Your task to perform on an android device: Where can I buy a nice beach chair? Image 0: 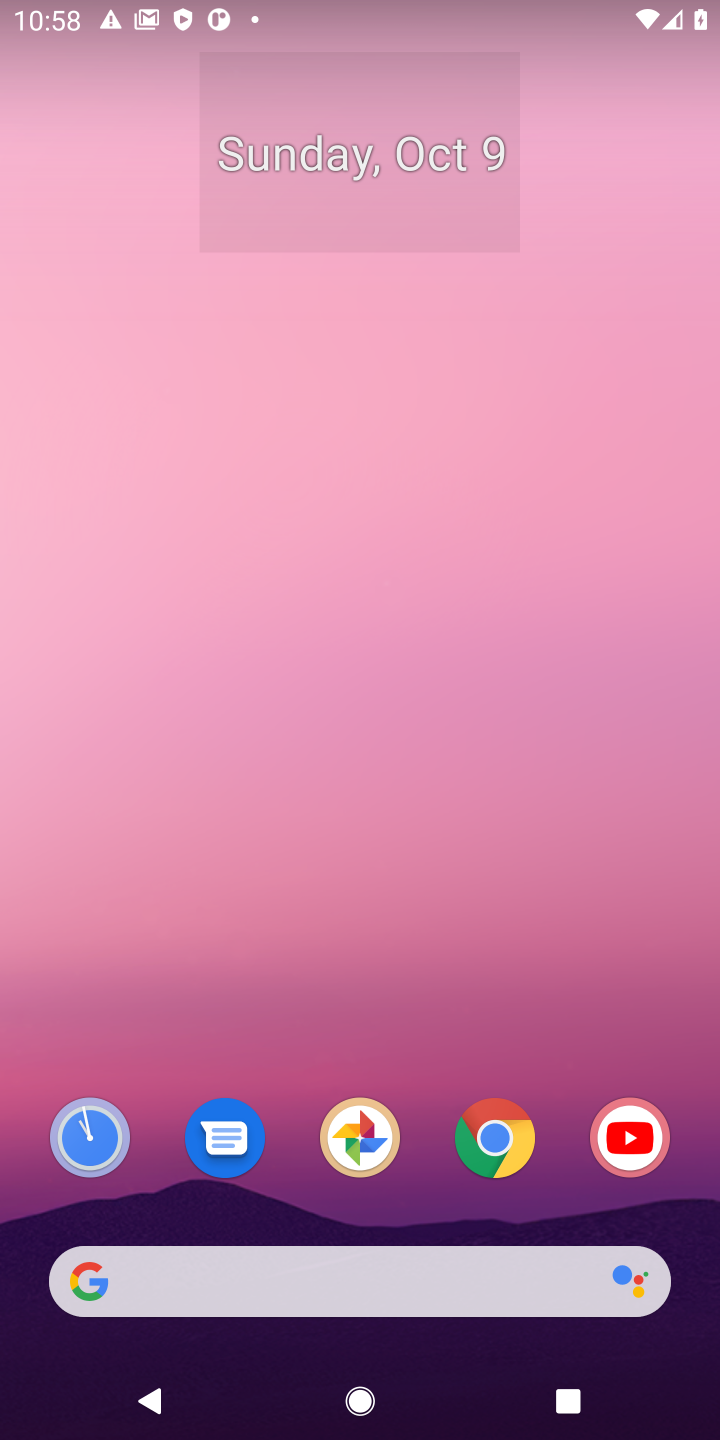
Step 0: click (500, 1165)
Your task to perform on an android device: Where can I buy a nice beach chair? Image 1: 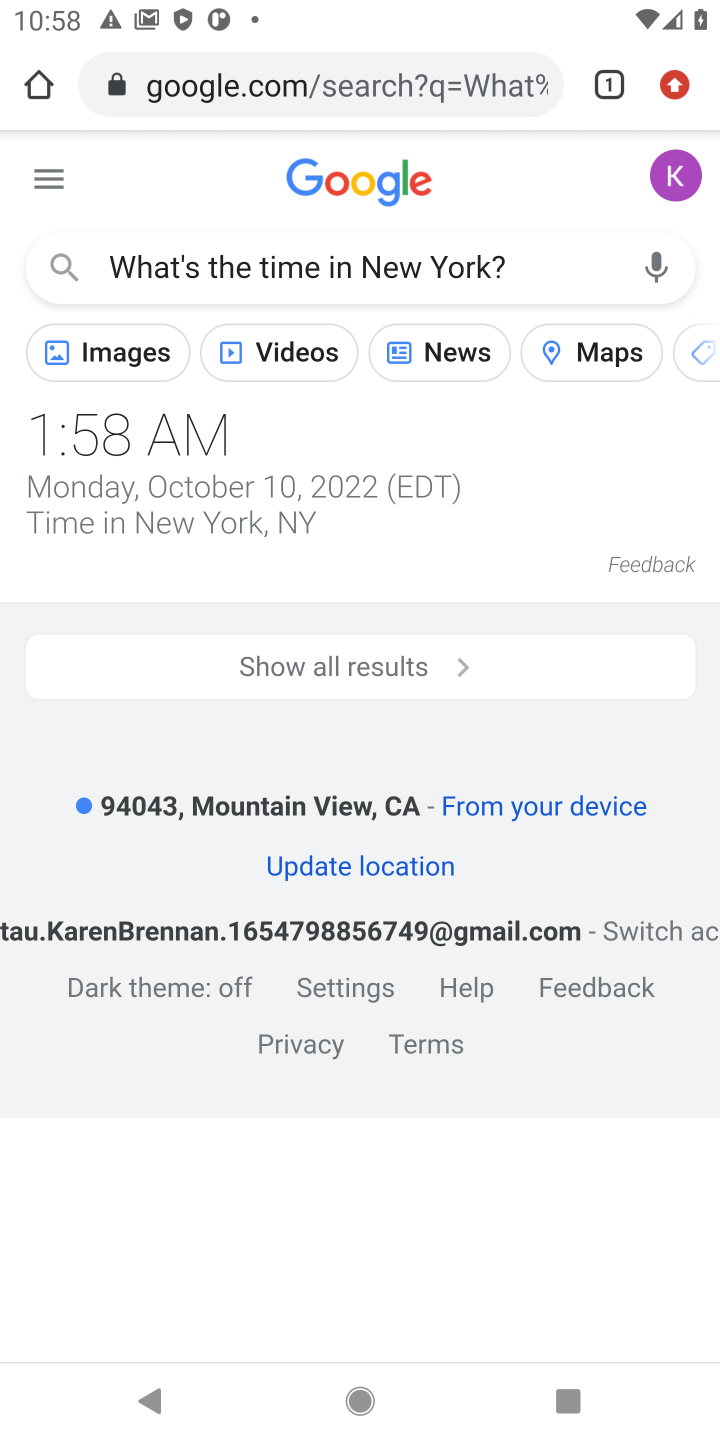
Step 1: click (538, 280)
Your task to perform on an android device: Where can I buy a nice beach chair? Image 2: 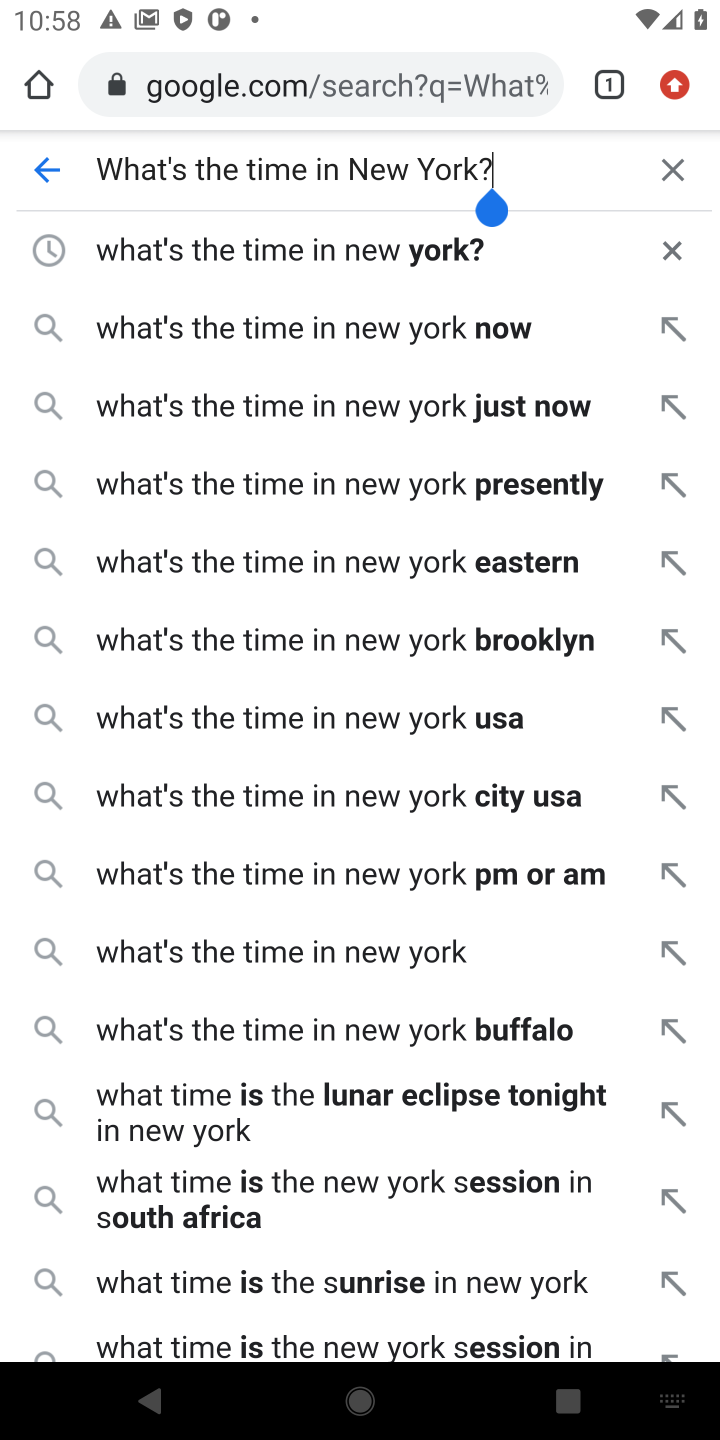
Step 2: click (672, 183)
Your task to perform on an android device: Where can I buy a nice beach chair? Image 3: 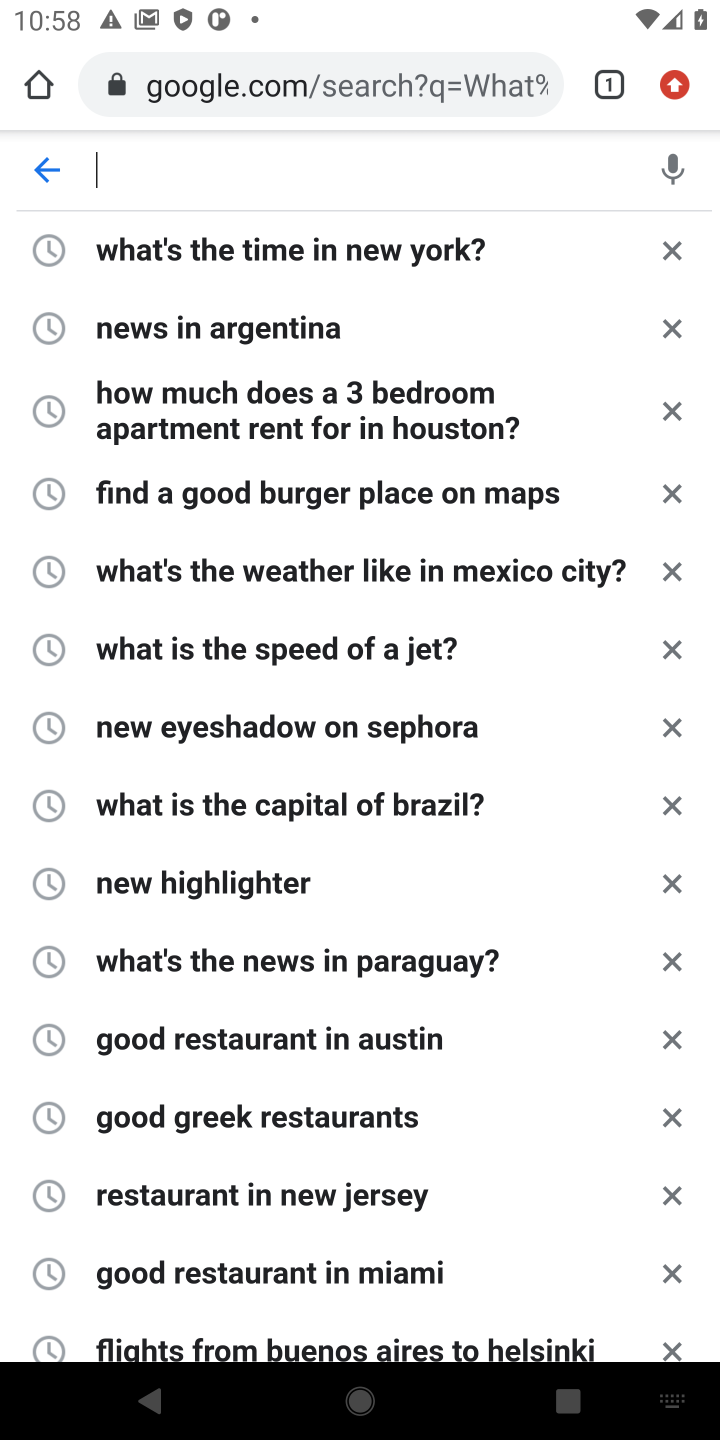
Step 3: type "Where can I buy a nice beach chair?"
Your task to perform on an android device: Where can I buy a nice beach chair? Image 4: 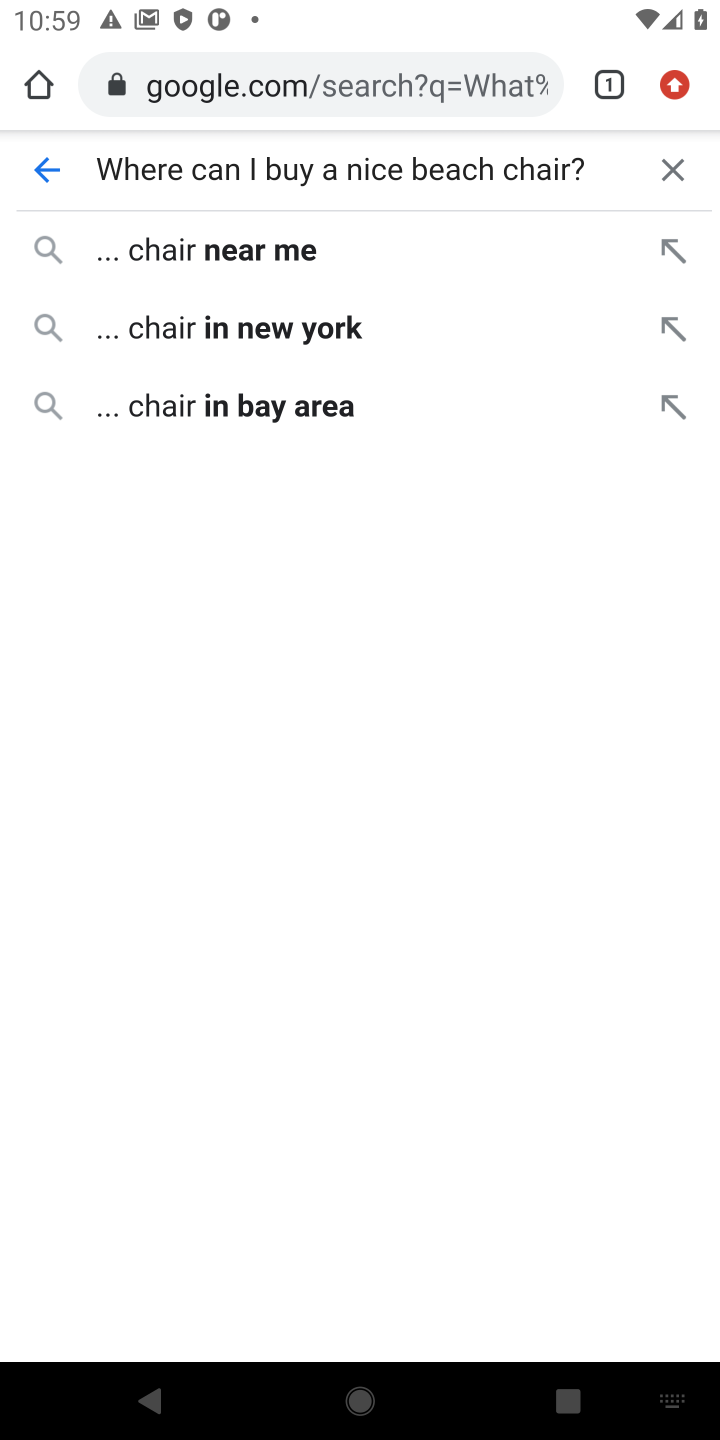
Step 4: press enter
Your task to perform on an android device: Where can I buy a nice beach chair? Image 5: 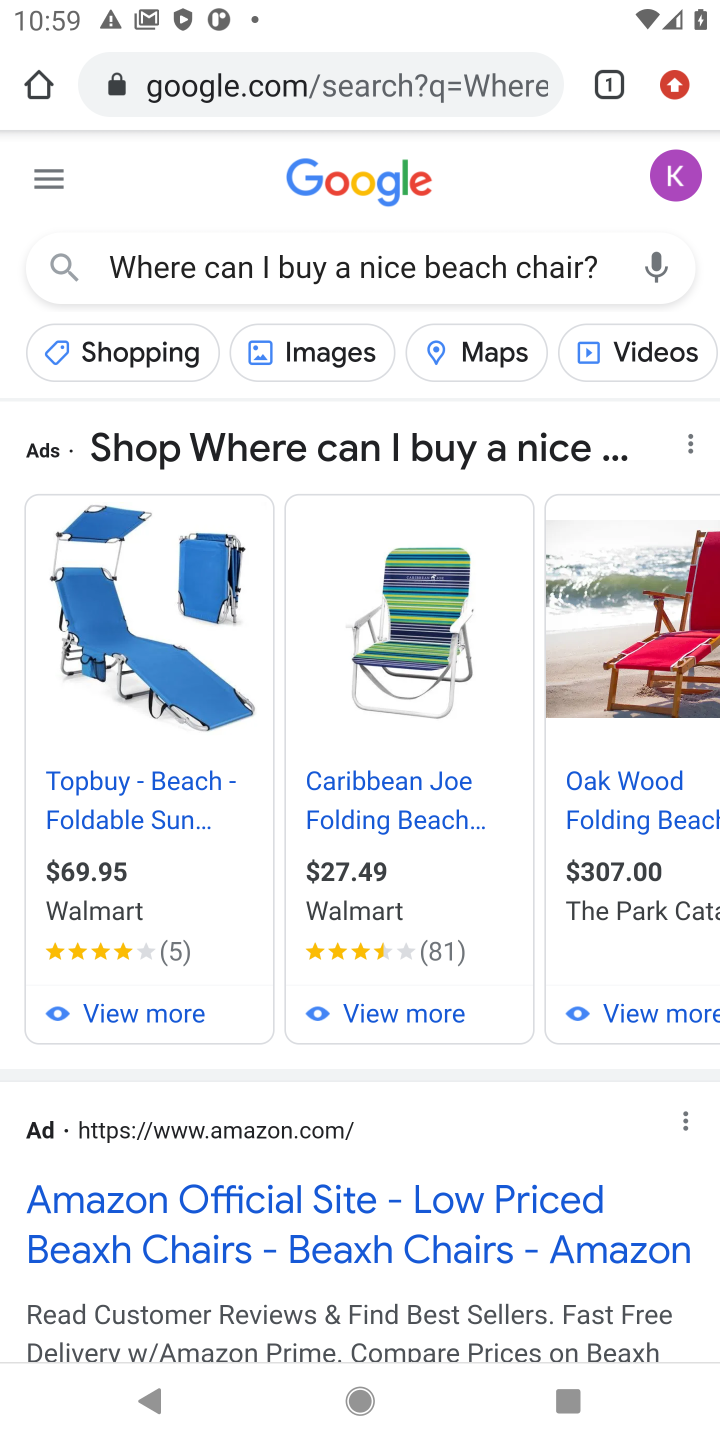
Step 5: task complete